Your task to perform on an android device: See recent photos Image 0: 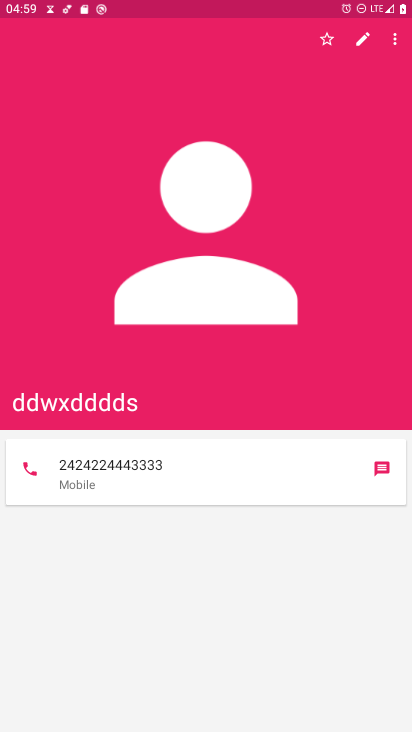
Step 0: press home button
Your task to perform on an android device: See recent photos Image 1: 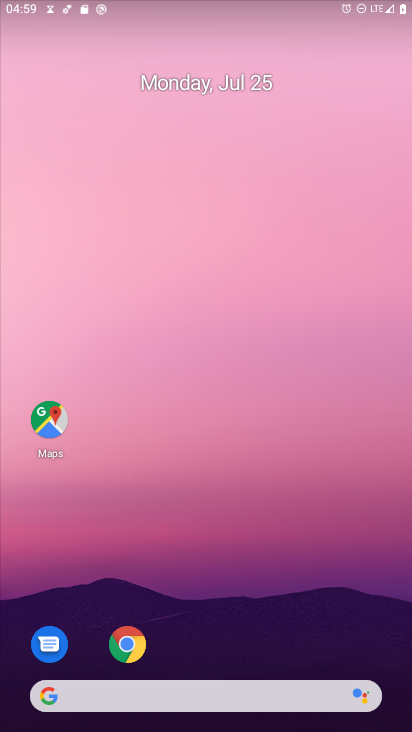
Step 1: drag from (281, 377) to (281, 176)
Your task to perform on an android device: See recent photos Image 2: 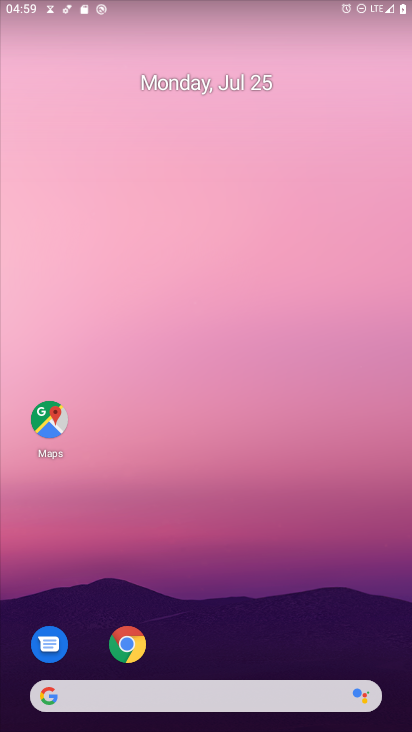
Step 2: drag from (255, 443) to (251, 99)
Your task to perform on an android device: See recent photos Image 3: 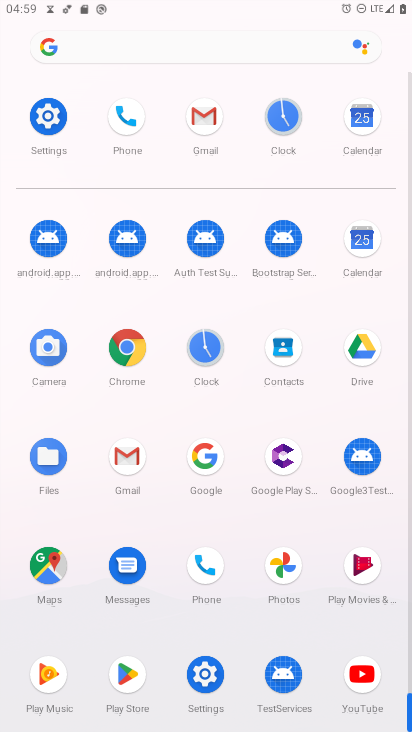
Step 3: click (288, 555)
Your task to perform on an android device: See recent photos Image 4: 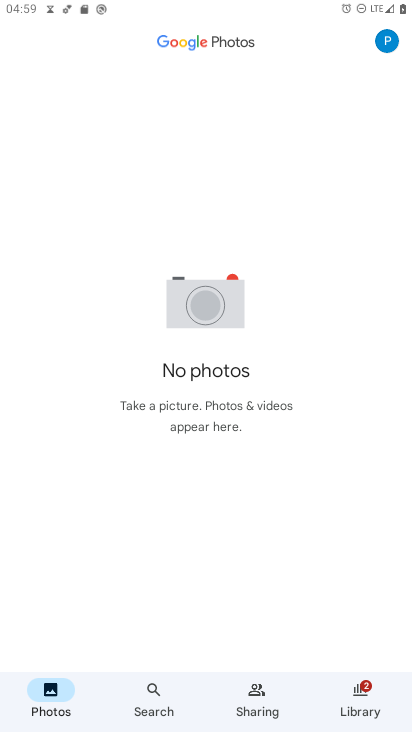
Step 4: click (151, 688)
Your task to perform on an android device: See recent photos Image 5: 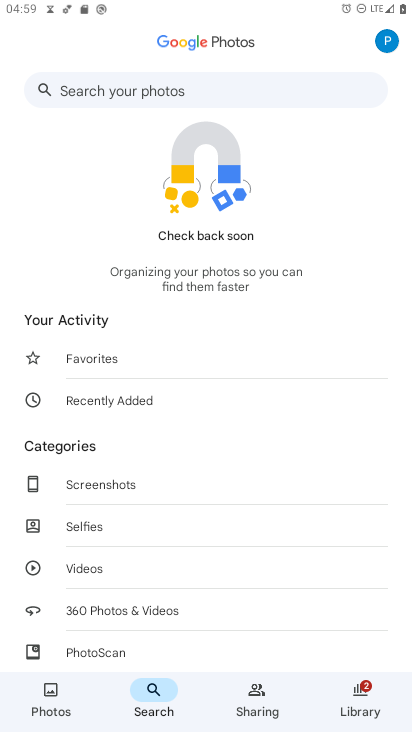
Step 5: task complete